Your task to perform on an android device: check data usage Image 0: 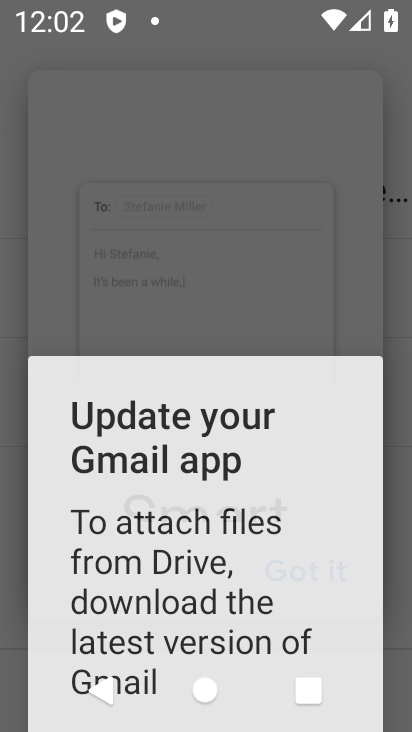
Step 0: press home button
Your task to perform on an android device: check data usage Image 1: 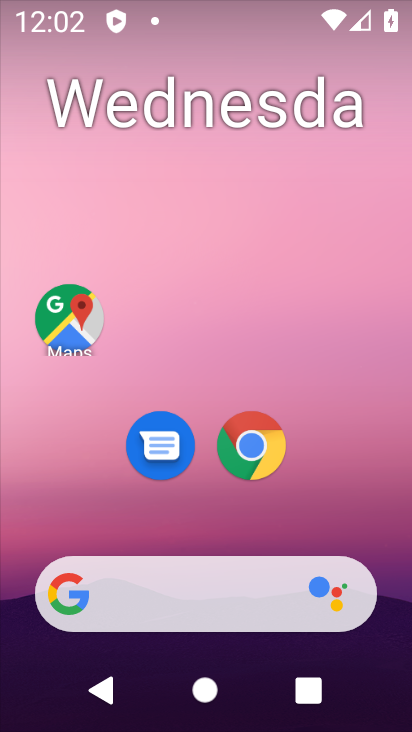
Step 1: drag from (87, 539) to (188, 122)
Your task to perform on an android device: check data usage Image 2: 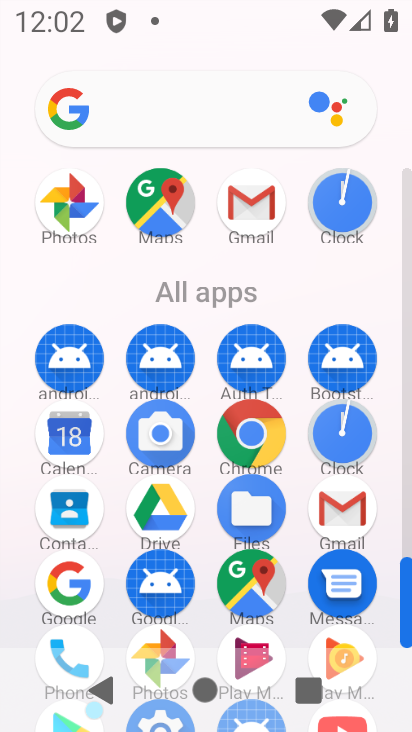
Step 2: drag from (178, 637) to (266, 362)
Your task to perform on an android device: check data usage Image 3: 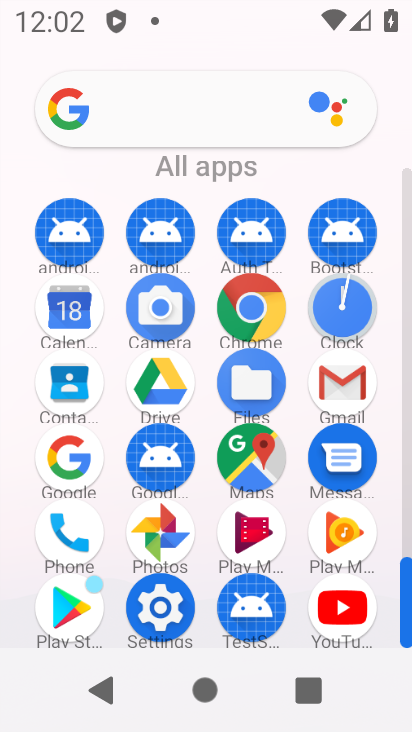
Step 3: click (162, 619)
Your task to perform on an android device: check data usage Image 4: 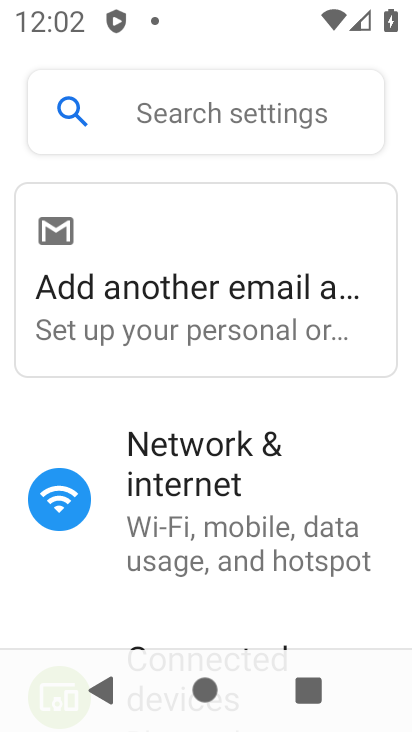
Step 4: click (290, 566)
Your task to perform on an android device: check data usage Image 5: 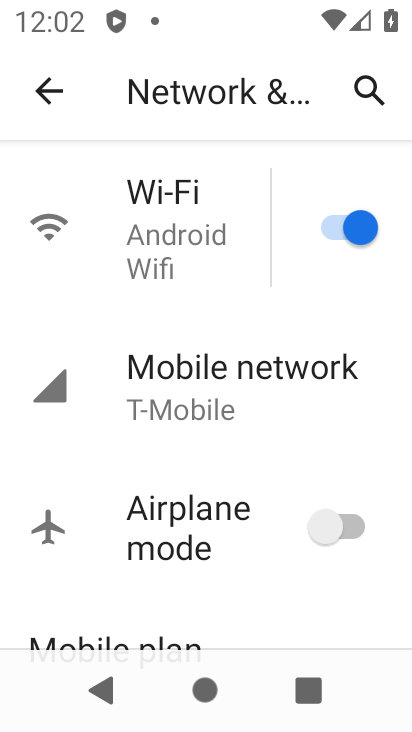
Step 5: drag from (161, 611) to (282, 357)
Your task to perform on an android device: check data usage Image 6: 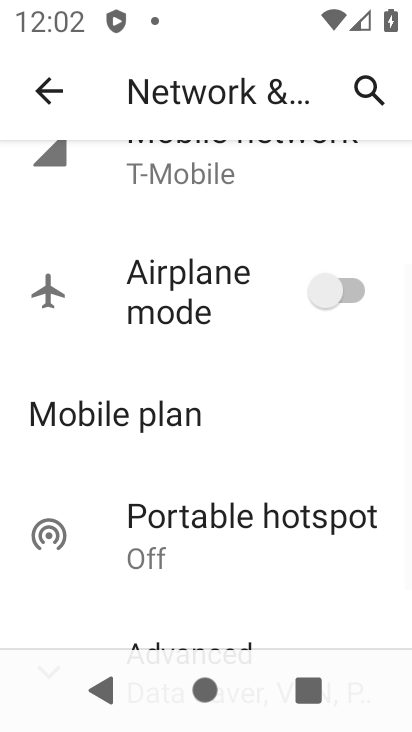
Step 6: click (262, 180)
Your task to perform on an android device: check data usage Image 7: 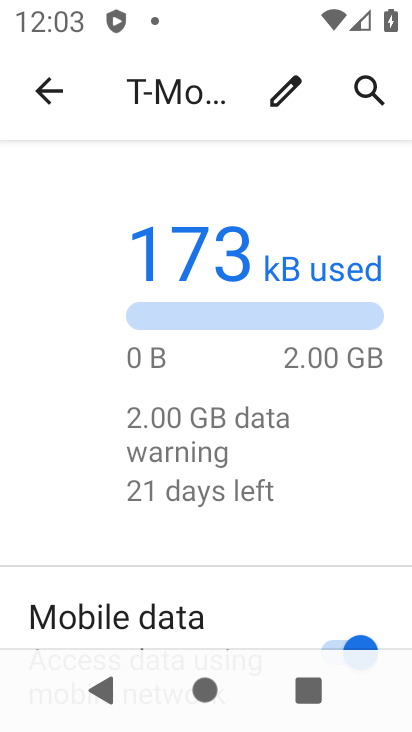
Step 7: drag from (188, 588) to (356, 183)
Your task to perform on an android device: check data usage Image 8: 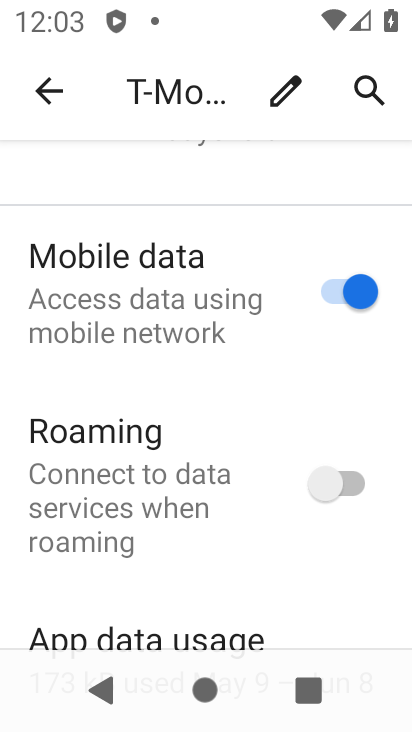
Step 8: drag from (187, 578) to (260, 364)
Your task to perform on an android device: check data usage Image 9: 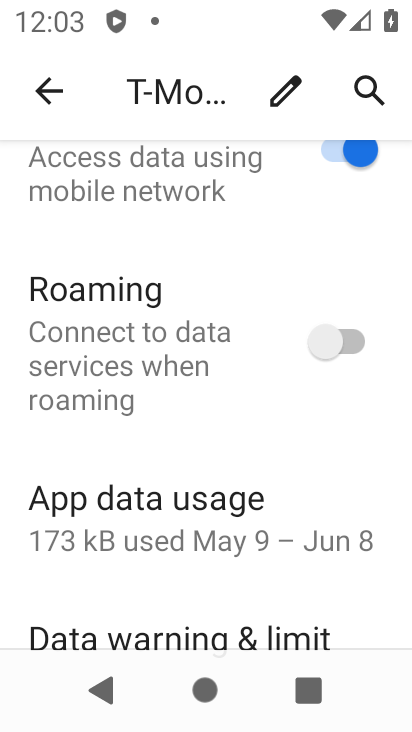
Step 9: click (210, 495)
Your task to perform on an android device: check data usage Image 10: 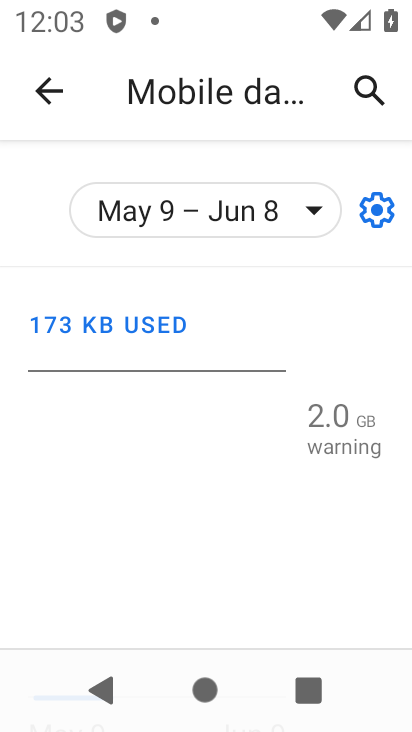
Step 10: task complete